Your task to perform on an android device: Open Reddit.com Image 0: 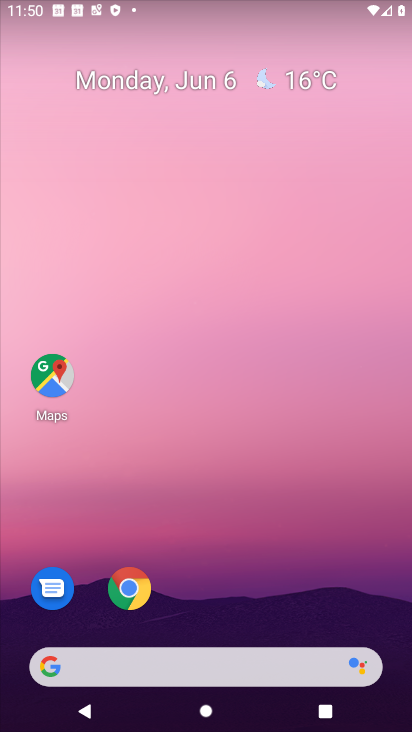
Step 0: click (127, 580)
Your task to perform on an android device: Open Reddit.com Image 1: 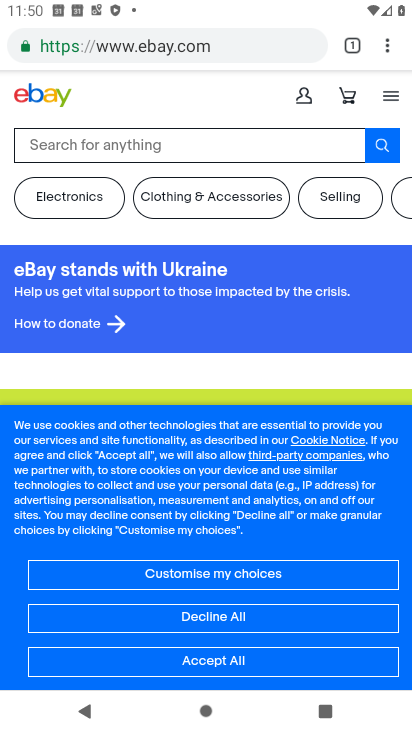
Step 1: click (353, 54)
Your task to perform on an android device: Open Reddit.com Image 2: 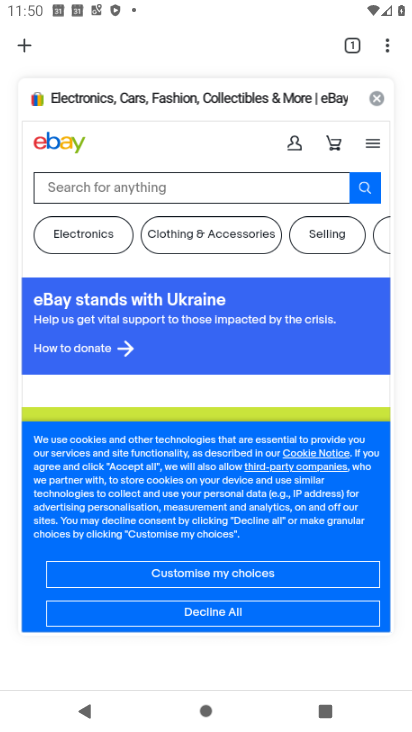
Step 2: click (20, 41)
Your task to perform on an android device: Open Reddit.com Image 3: 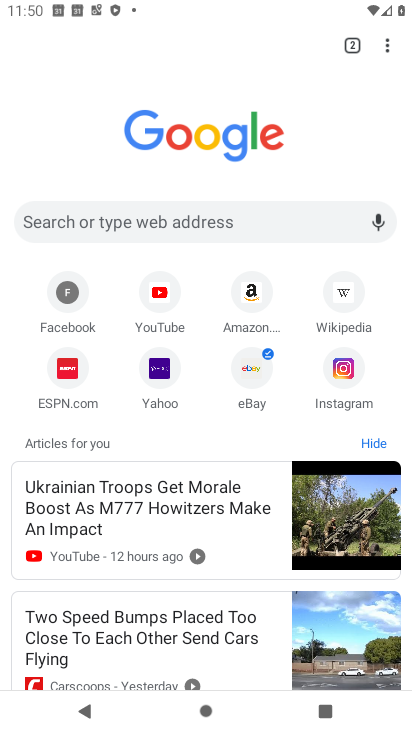
Step 3: click (136, 236)
Your task to perform on an android device: Open Reddit.com Image 4: 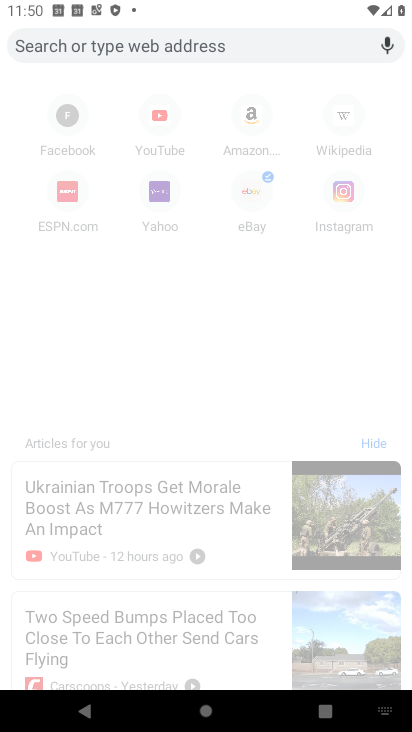
Step 4: type "reddit"
Your task to perform on an android device: Open Reddit.com Image 5: 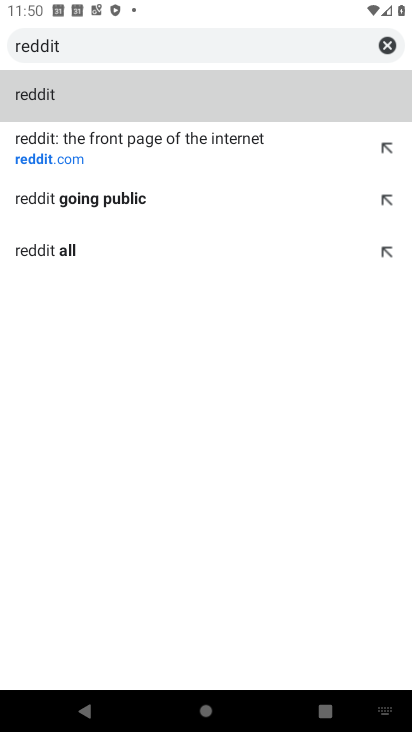
Step 5: click (222, 143)
Your task to perform on an android device: Open Reddit.com Image 6: 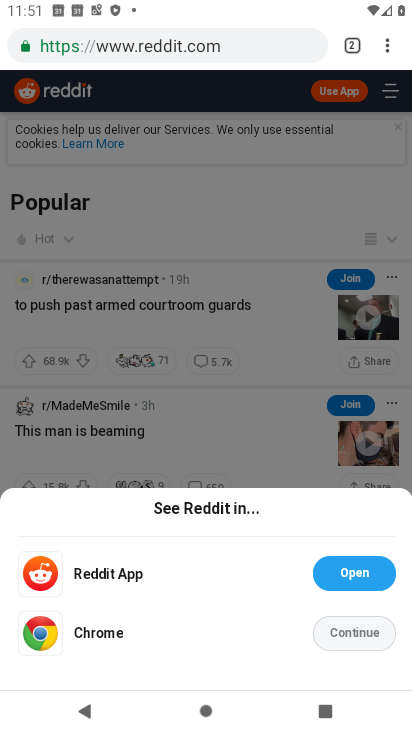
Step 6: task complete